Your task to perform on an android device: turn smart compose on in the gmail app Image 0: 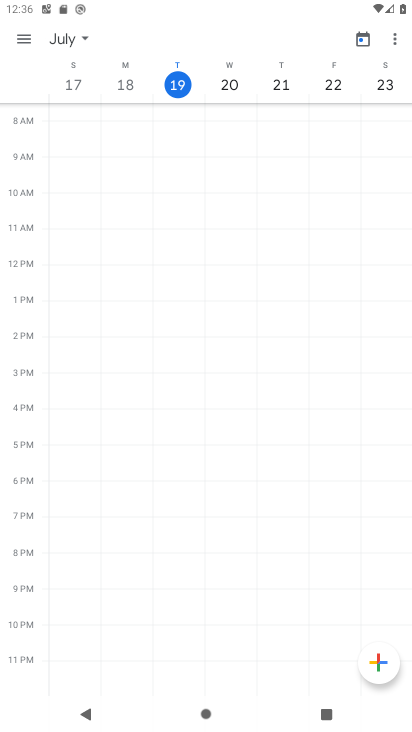
Step 0: press home button
Your task to perform on an android device: turn smart compose on in the gmail app Image 1: 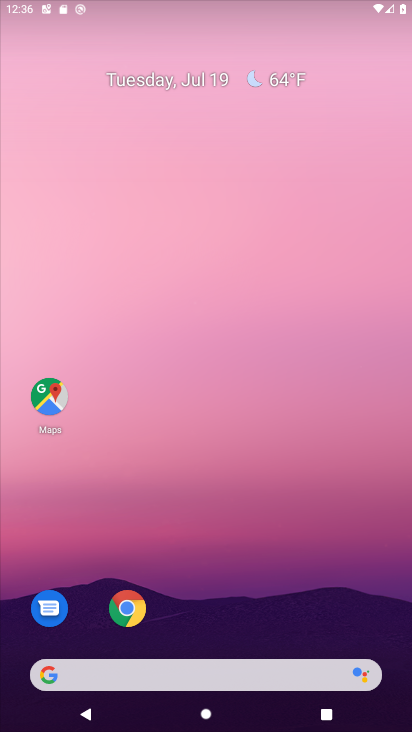
Step 1: drag from (241, 592) to (314, 49)
Your task to perform on an android device: turn smart compose on in the gmail app Image 2: 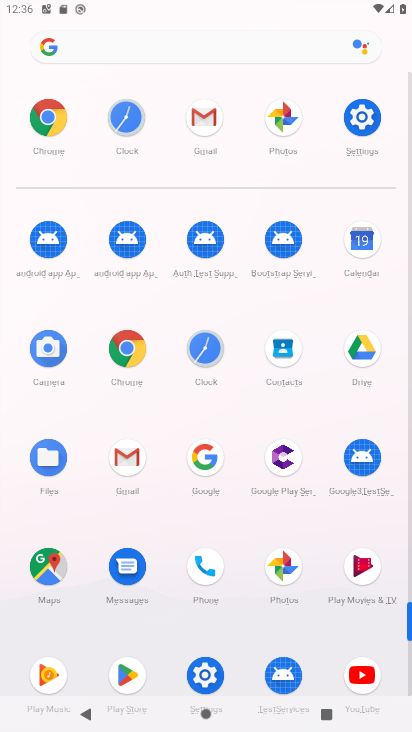
Step 2: click (124, 467)
Your task to perform on an android device: turn smart compose on in the gmail app Image 3: 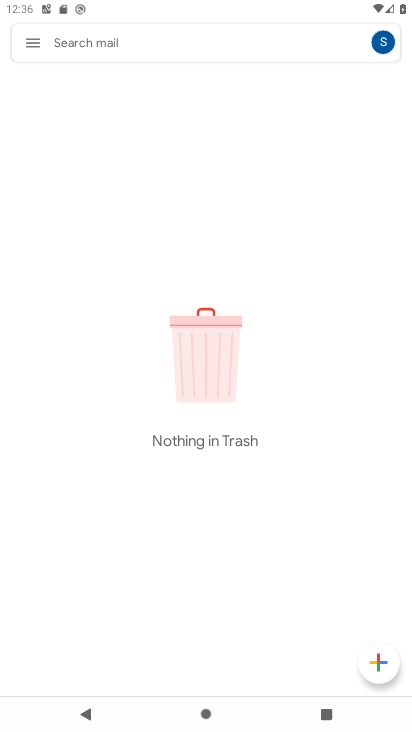
Step 3: click (28, 52)
Your task to perform on an android device: turn smart compose on in the gmail app Image 4: 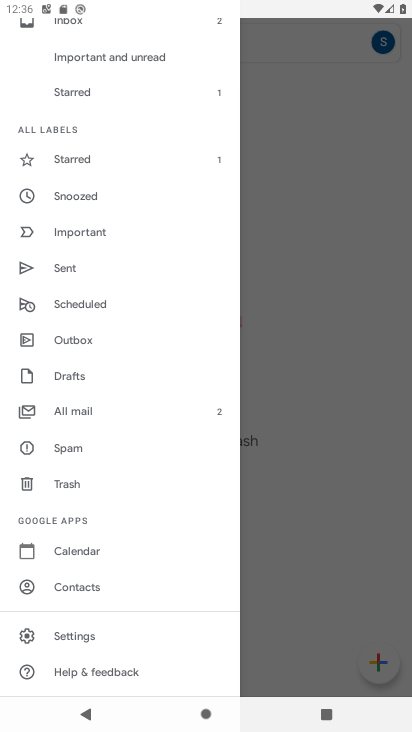
Step 4: click (88, 640)
Your task to perform on an android device: turn smart compose on in the gmail app Image 5: 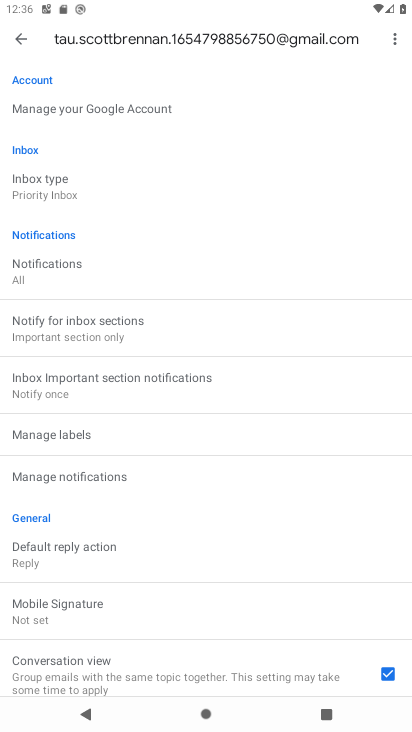
Step 5: task complete